Your task to perform on an android device: Show me recent news Image 0: 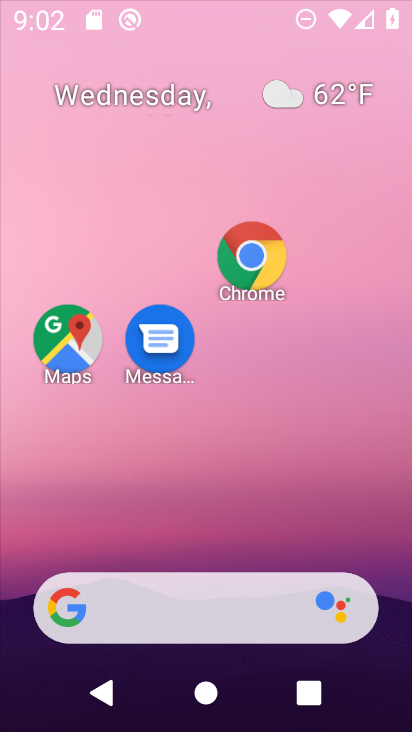
Step 0: press home button
Your task to perform on an android device: Show me recent news Image 1: 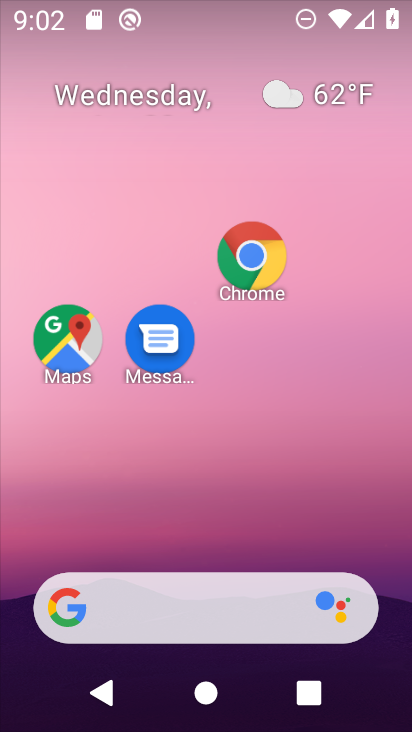
Step 1: drag from (265, 505) to (222, 68)
Your task to perform on an android device: Show me recent news Image 2: 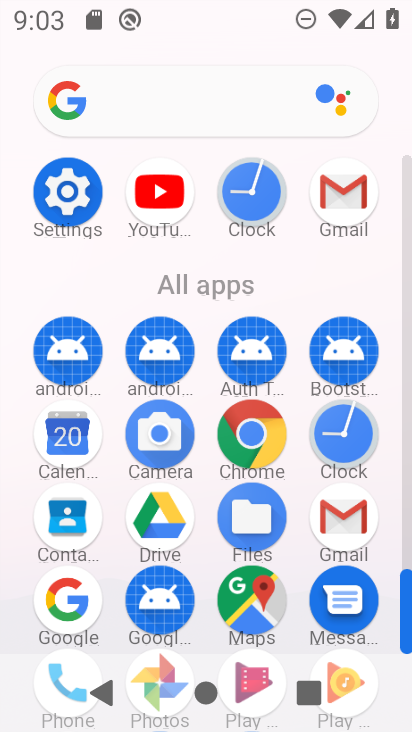
Step 2: click (68, 601)
Your task to perform on an android device: Show me recent news Image 3: 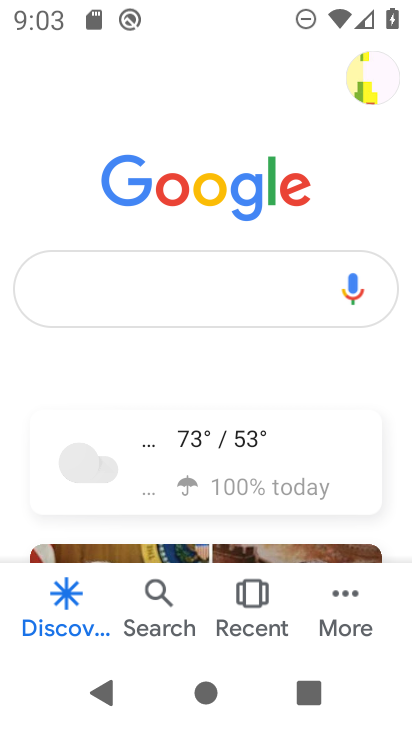
Step 3: click (176, 298)
Your task to perform on an android device: Show me recent news Image 4: 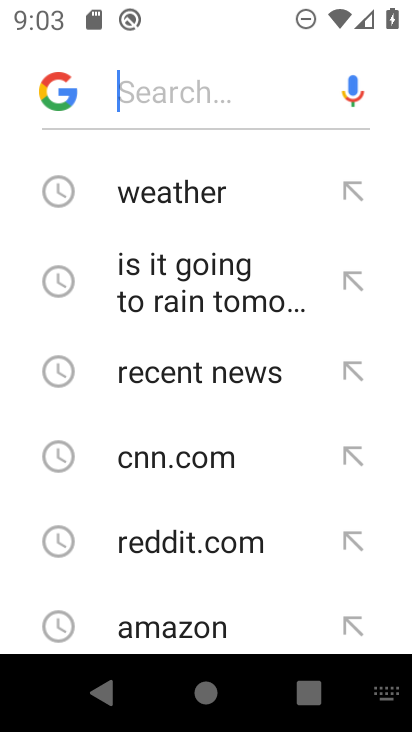
Step 4: type "news"
Your task to perform on an android device: Show me recent news Image 5: 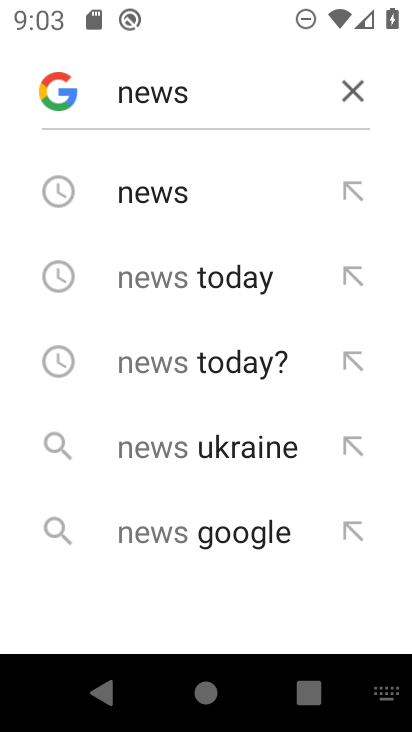
Step 5: type " recent"
Your task to perform on an android device: Show me recent news Image 6: 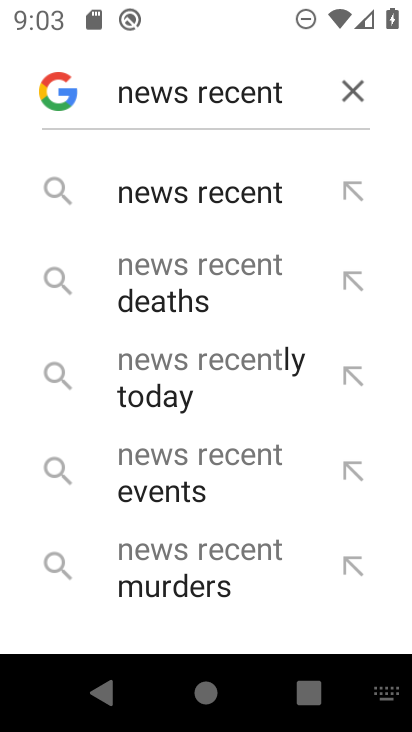
Step 6: click (181, 173)
Your task to perform on an android device: Show me recent news Image 7: 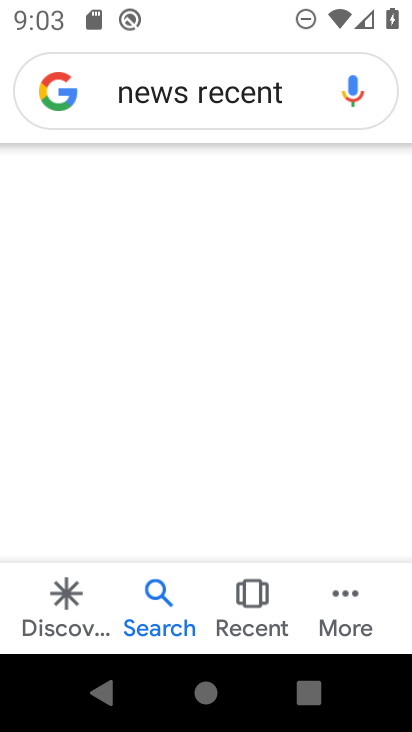
Step 7: click (191, 185)
Your task to perform on an android device: Show me recent news Image 8: 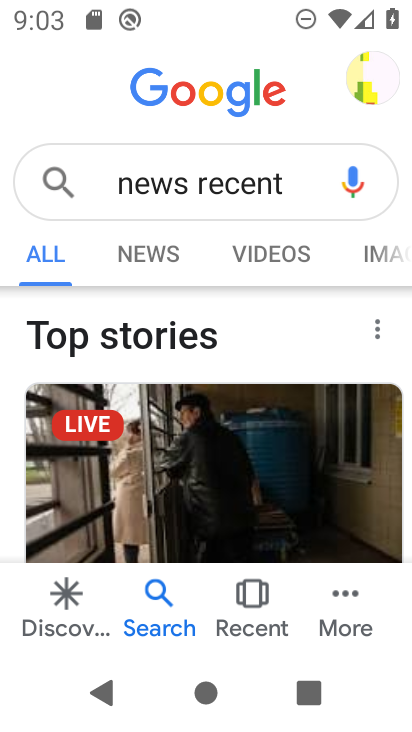
Step 8: task complete